Your task to perform on an android device: Show me recent news Image 0: 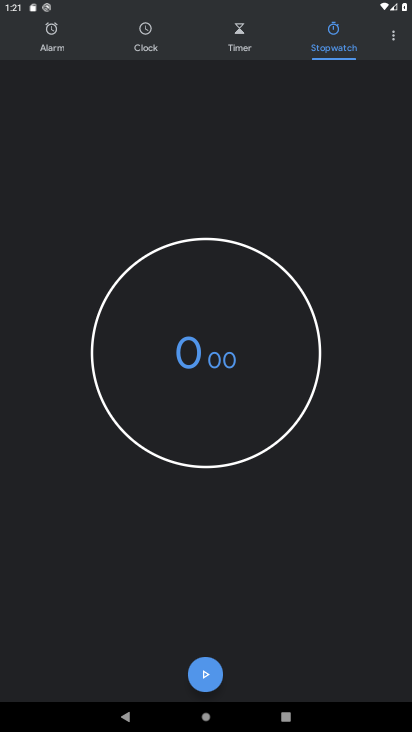
Step 0: press home button
Your task to perform on an android device: Show me recent news Image 1: 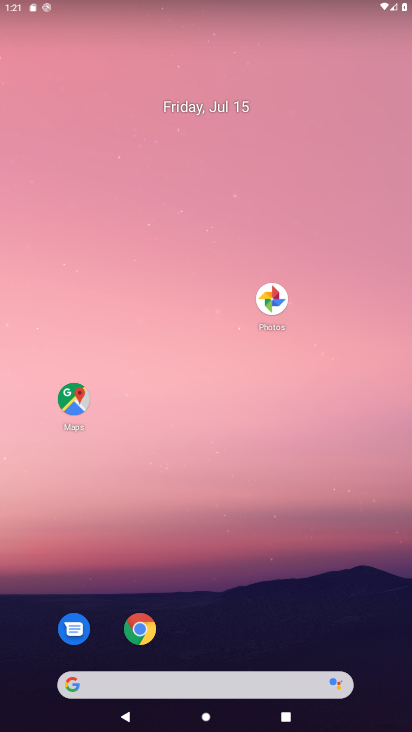
Step 1: drag from (221, 618) to (229, 261)
Your task to perform on an android device: Show me recent news Image 2: 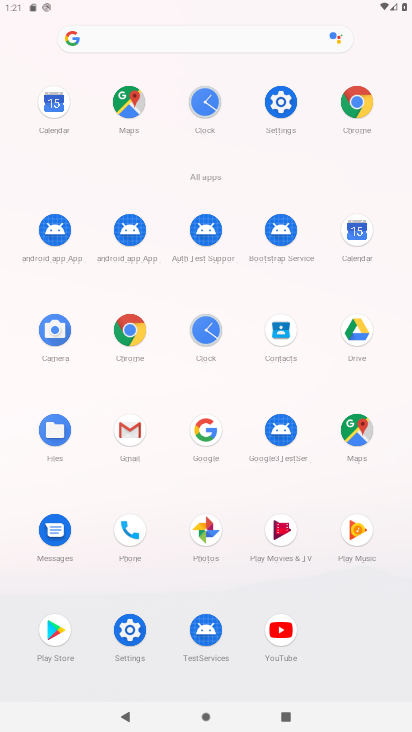
Step 2: click (350, 103)
Your task to perform on an android device: Show me recent news Image 3: 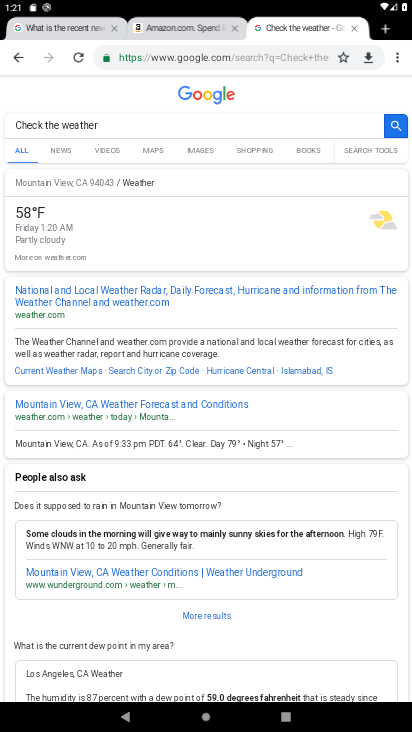
Step 3: click (58, 28)
Your task to perform on an android device: Show me recent news Image 4: 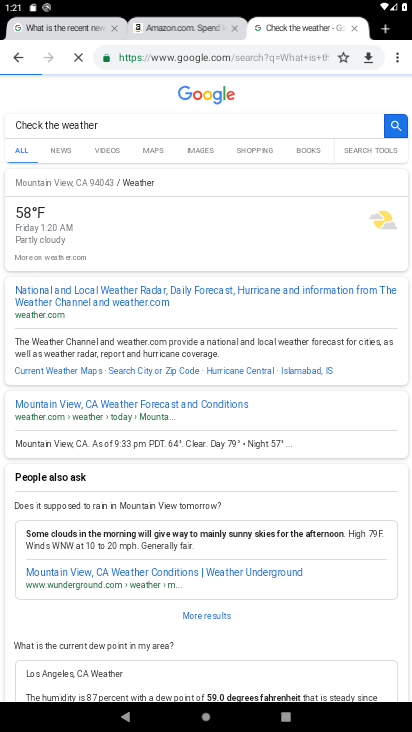
Step 4: click (58, 23)
Your task to perform on an android device: Show me recent news Image 5: 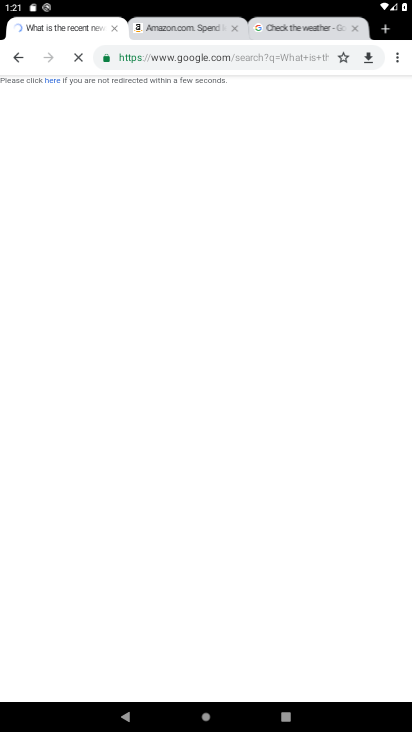
Step 5: click (58, 23)
Your task to perform on an android device: Show me recent news Image 6: 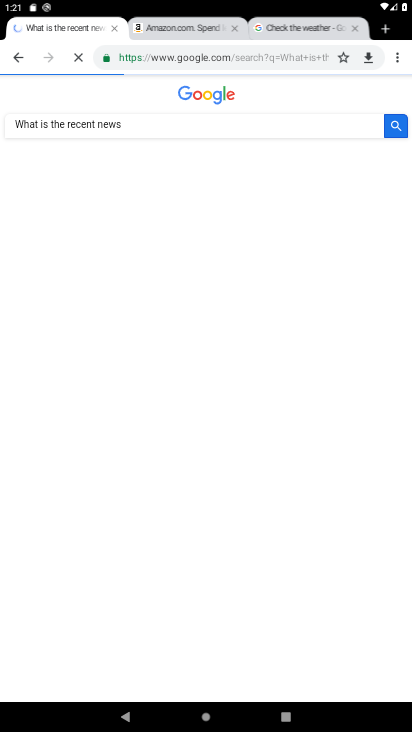
Step 6: click (58, 23)
Your task to perform on an android device: Show me recent news Image 7: 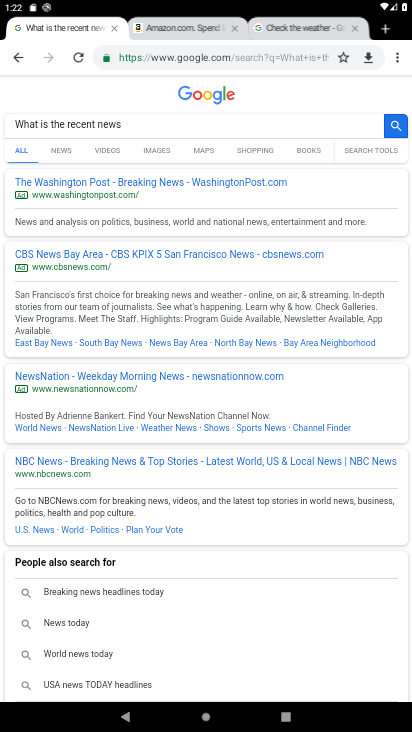
Step 7: click (383, 25)
Your task to perform on an android device: Show me recent news Image 8: 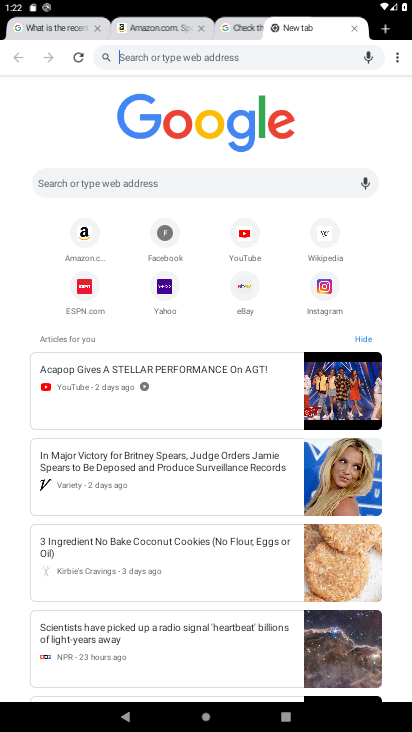
Step 8: click (247, 176)
Your task to perform on an android device: Show me recent news Image 9: 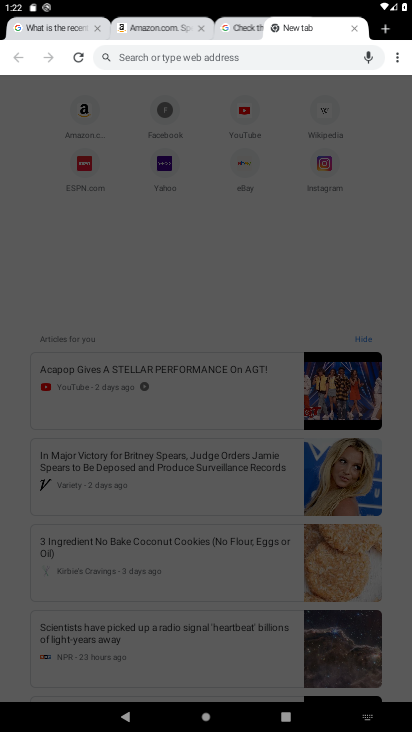
Step 9: type "Show me recent news "
Your task to perform on an android device: Show me recent news Image 10: 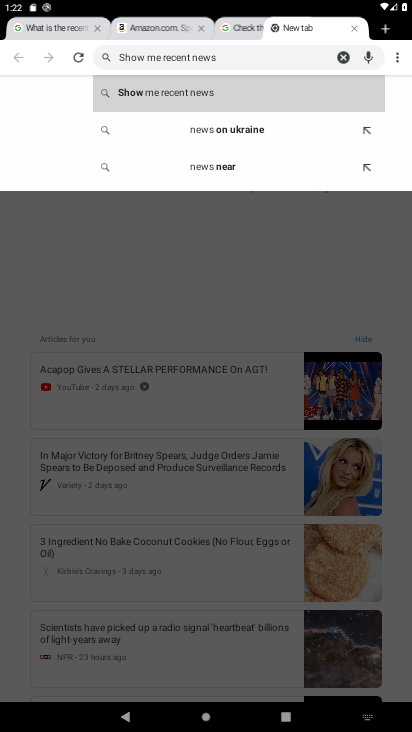
Step 10: click (293, 88)
Your task to perform on an android device: Show me recent news Image 11: 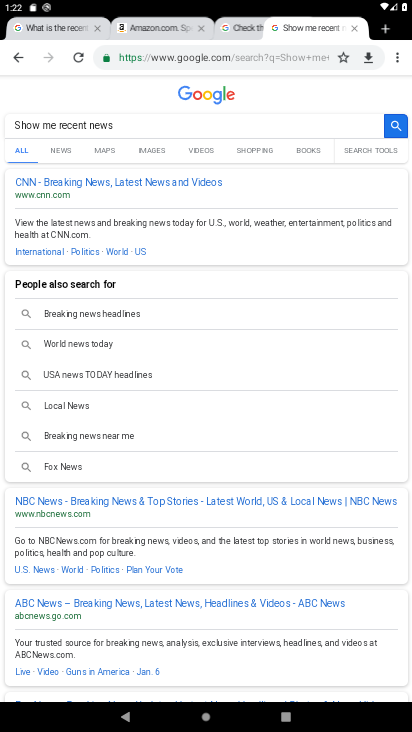
Step 11: task complete